Your task to perform on an android device: open a bookmark in the chrome app Image 0: 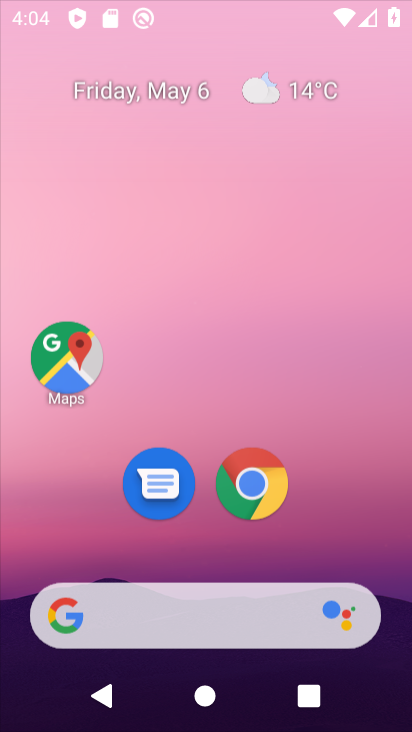
Step 0: drag from (235, 587) to (351, 731)
Your task to perform on an android device: open a bookmark in the chrome app Image 1: 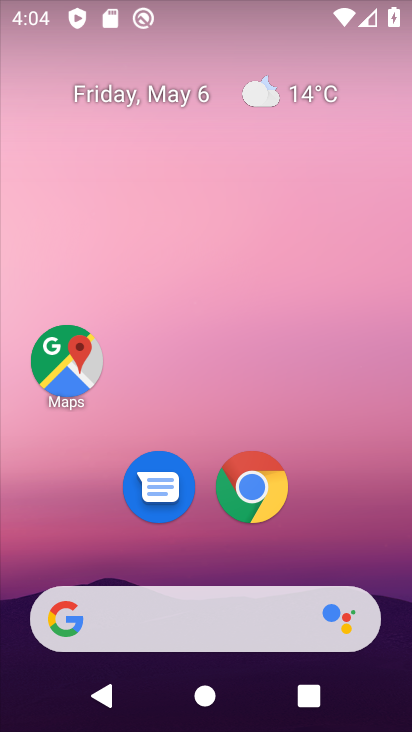
Step 1: click (257, 440)
Your task to perform on an android device: open a bookmark in the chrome app Image 2: 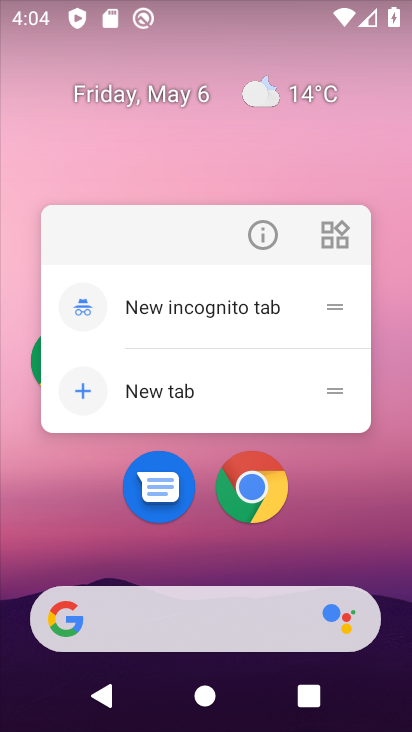
Step 2: click (258, 477)
Your task to perform on an android device: open a bookmark in the chrome app Image 3: 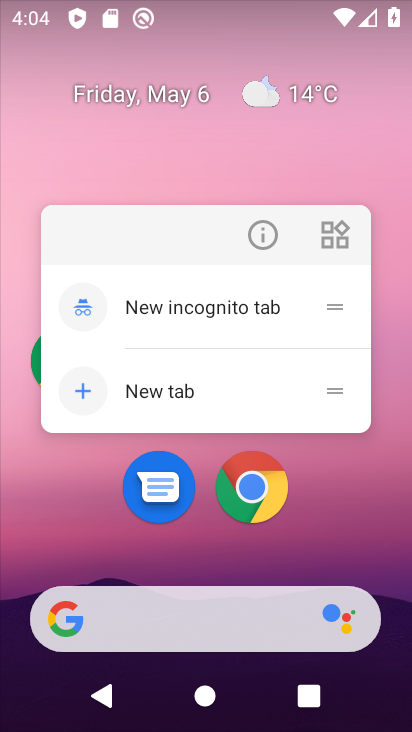
Step 3: click (258, 477)
Your task to perform on an android device: open a bookmark in the chrome app Image 4: 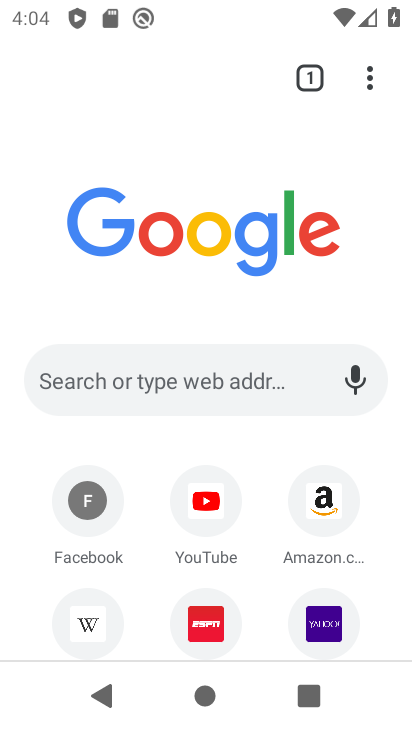
Step 4: click (381, 80)
Your task to perform on an android device: open a bookmark in the chrome app Image 5: 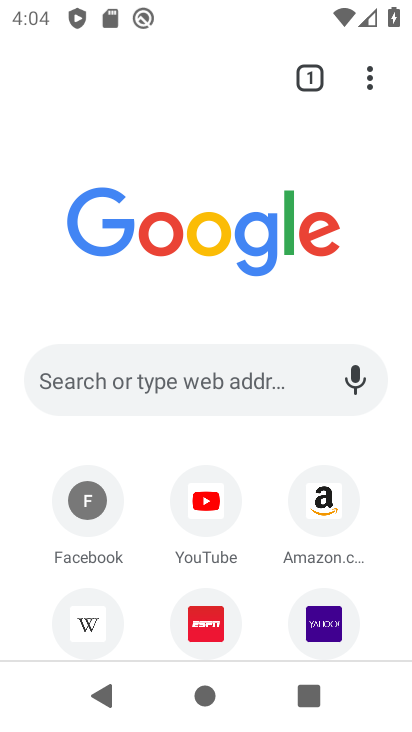
Step 5: task complete